Your task to perform on an android device: turn off smart reply in the gmail app Image 0: 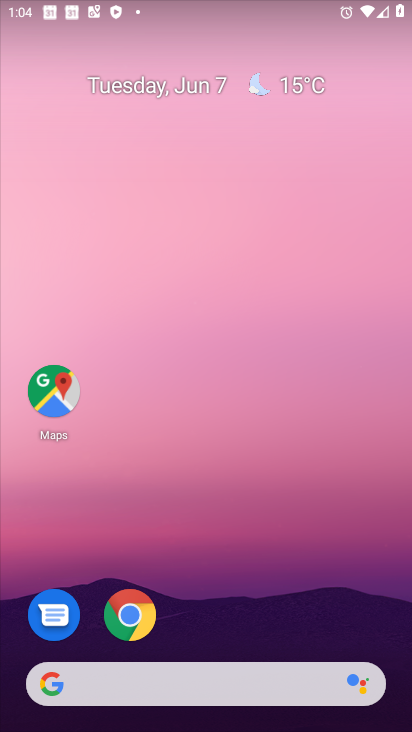
Step 0: drag from (196, 636) to (160, 190)
Your task to perform on an android device: turn off smart reply in the gmail app Image 1: 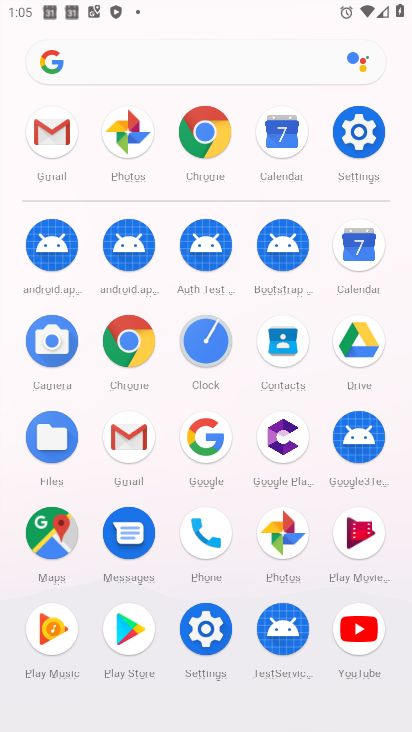
Step 1: click (53, 125)
Your task to perform on an android device: turn off smart reply in the gmail app Image 2: 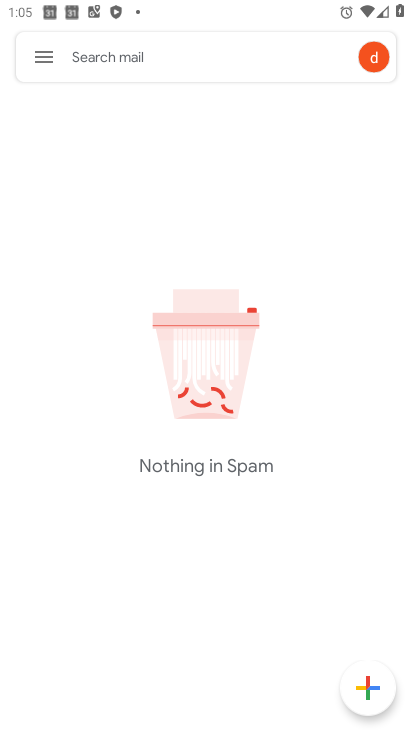
Step 2: click (42, 61)
Your task to perform on an android device: turn off smart reply in the gmail app Image 3: 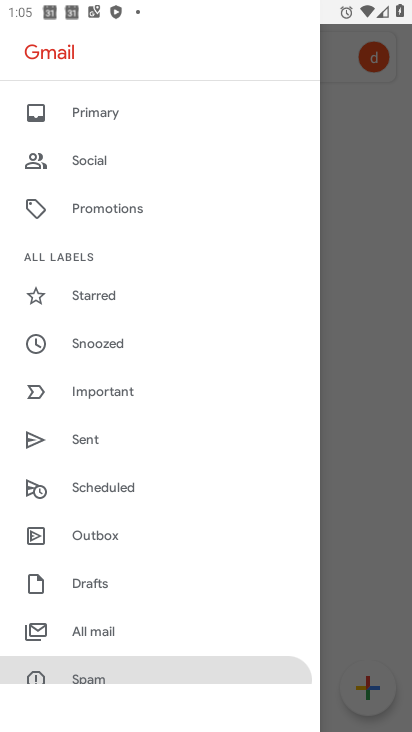
Step 3: drag from (123, 619) to (142, 252)
Your task to perform on an android device: turn off smart reply in the gmail app Image 4: 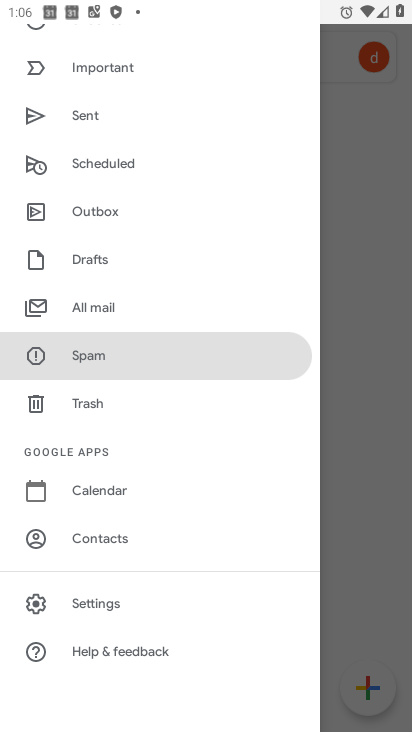
Step 4: click (95, 610)
Your task to perform on an android device: turn off smart reply in the gmail app Image 5: 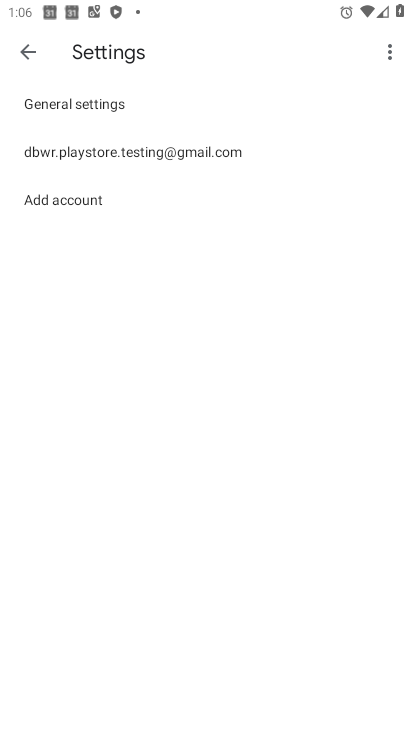
Step 5: click (136, 151)
Your task to perform on an android device: turn off smart reply in the gmail app Image 6: 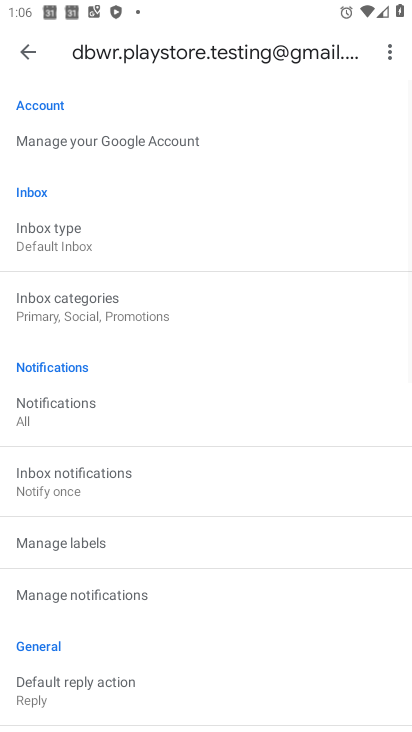
Step 6: task complete